Your task to perform on an android device: Open CNN.com Image 0: 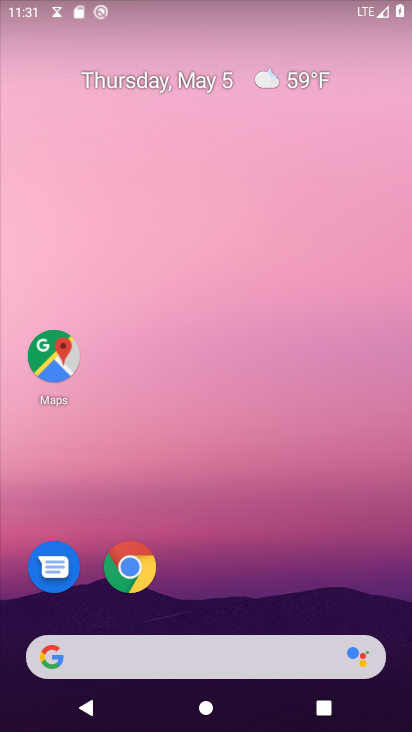
Step 0: click (134, 573)
Your task to perform on an android device: Open CNN.com Image 1: 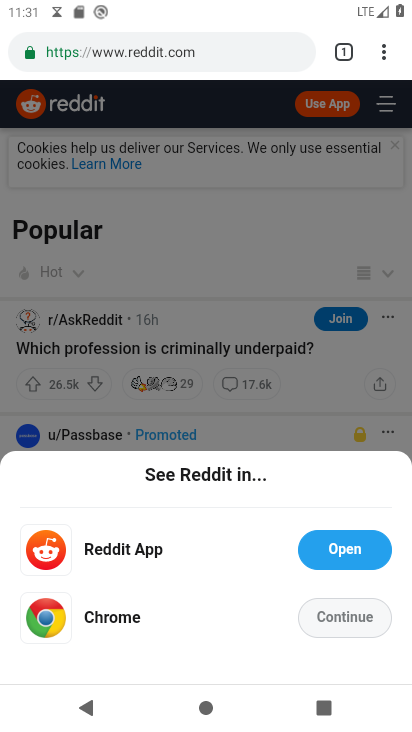
Step 1: click (115, 53)
Your task to perform on an android device: Open CNN.com Image 2: 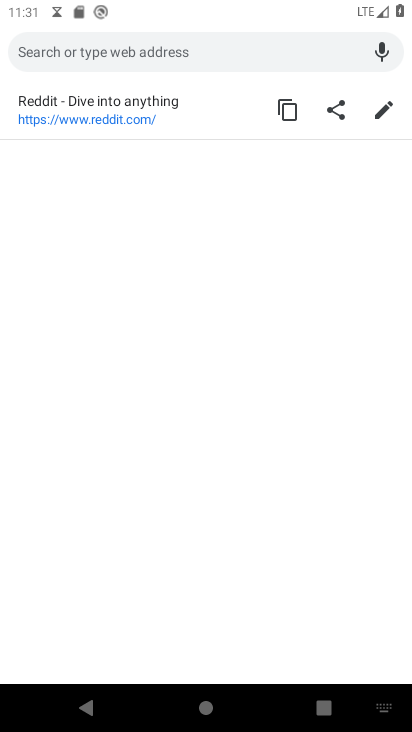
Step 2: type "cnn.com"
Your task to perform on an android device: Open CNN.com Image 3: 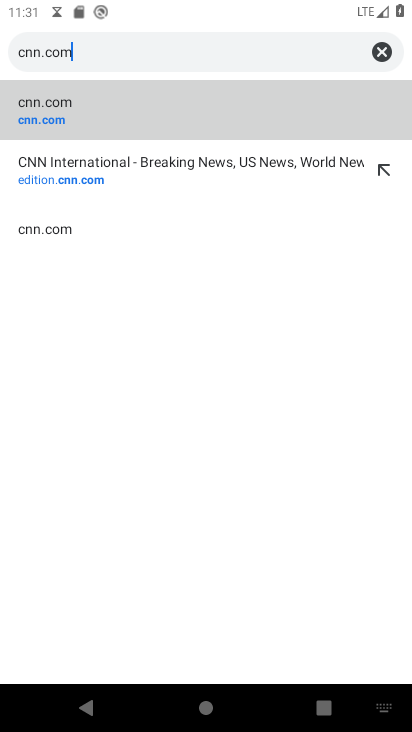
Step 3: click (54, 119)
Your task to perform on an android device: Open CNN.com Image 4: 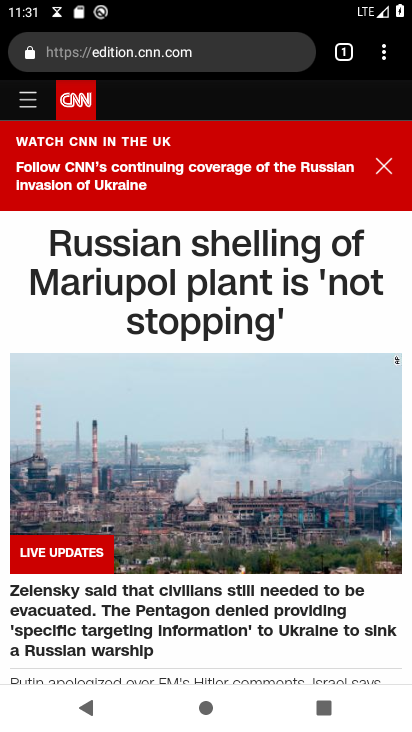
Step 4: task complete